Your task to perform on an android device: turn off picture-in-picture Image 0: 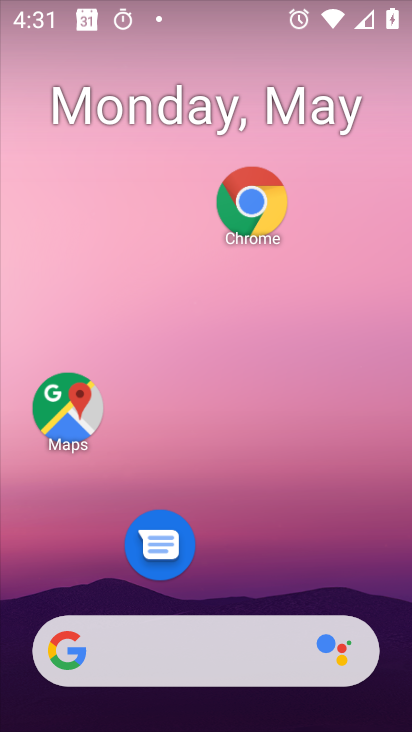
Step 0: click (232, 235)
Your task to perform on an android device: turn off picture-in-picture Image 1: 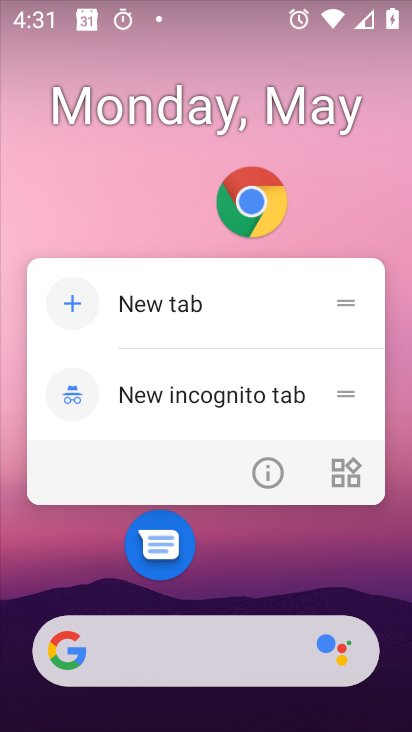
Step 1: click (268, 489)
Your task to perform on an android device: turn off picture-in-picture Image 2: 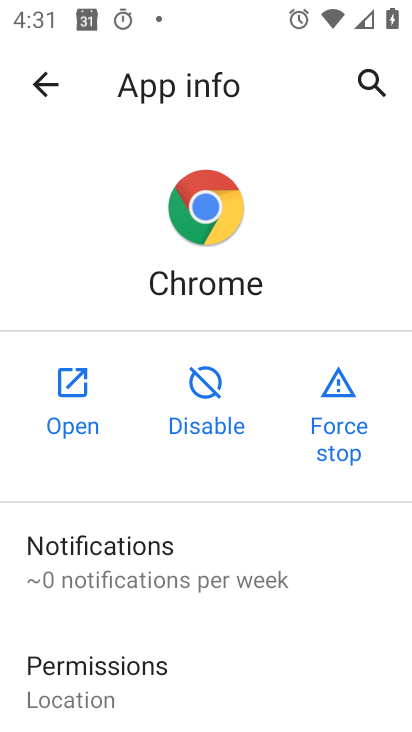
Step 2: drag from (229, 637) to (219, 305)
Your task to perform on an android device: turn off picture-in-picture Image 3: 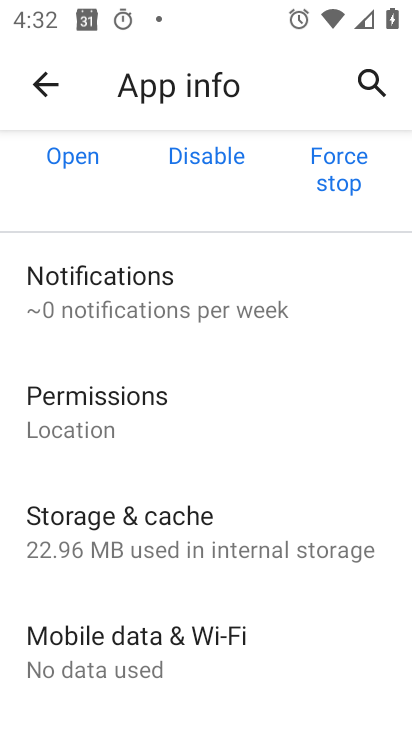
Step 3: drag from (237, 618) to (245, 395)
Your task to perform on an android device: turn off picture-in-picture Image 4: 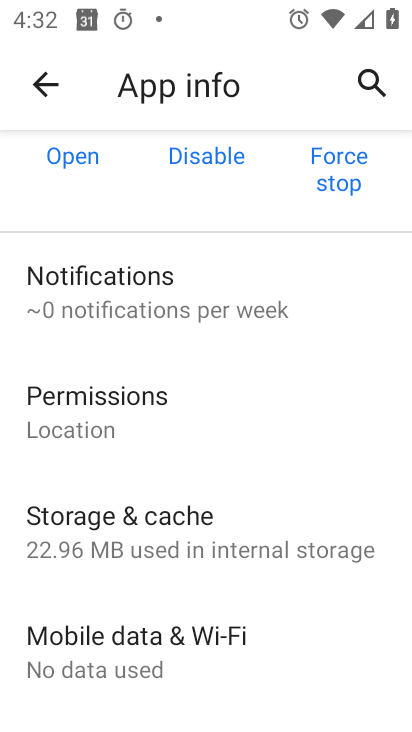
Step 4: drag from (229, 665) to (223, 448)
Your task to perform on an android device: turn off picture-in-picture Image 5: 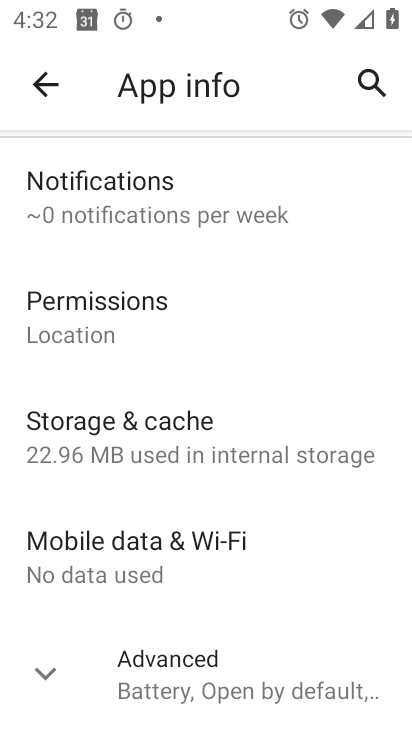
Step 5: click (138, 673)
Your task to perform on an android device: turn off picture-in-picture Image 6: 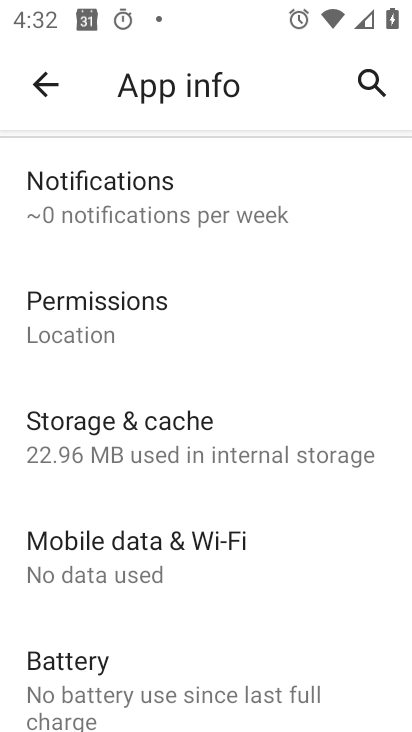
Step 6: drag from (198, 665) to (206, 290)
Your task to perform on an android device: turn off picture-in-picture Image 7: 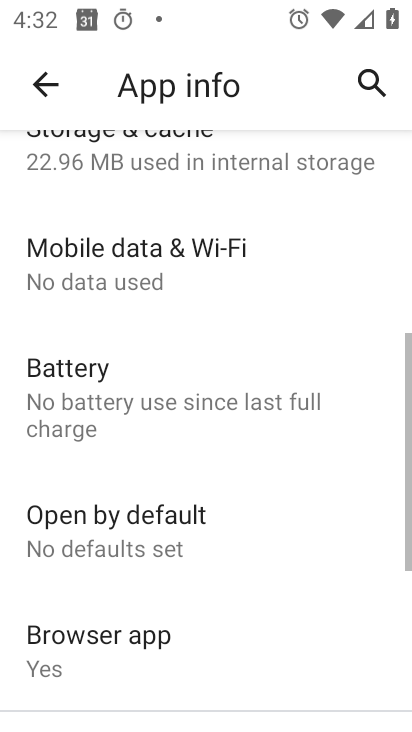
Step 7: drag from (187, 663) to (210, 377)
Your task to perform on an android device: turn off picture-in-picture Image 8: 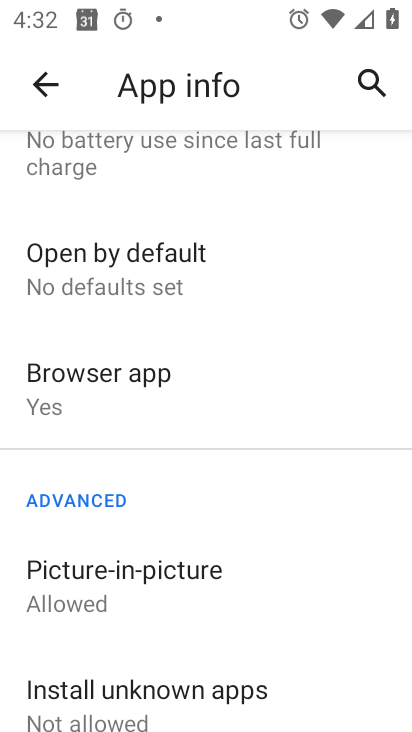
Step 8: click (190, 594)
Your task to perform on an android device: turn off picture-in-picture Image 9: 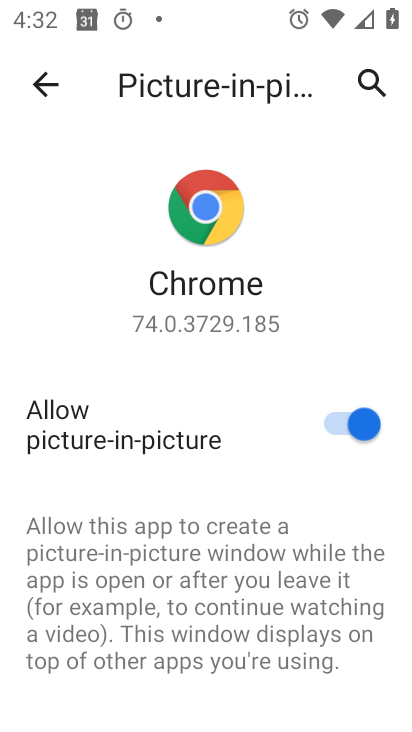
Step 9: click (328, 418)
Your task to perform on an android device: turn off picture-in-picture Image 10: 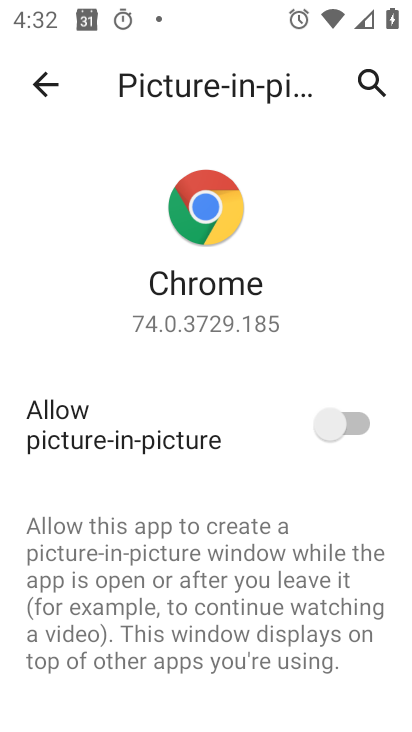
Step 10: task complete